Your task to perform on an android device: Clear all items from cart on newegg. Search for "macbook pro 15 inch" on newegg, select the first entry, add it to the cart, then select checkout. Image 0: 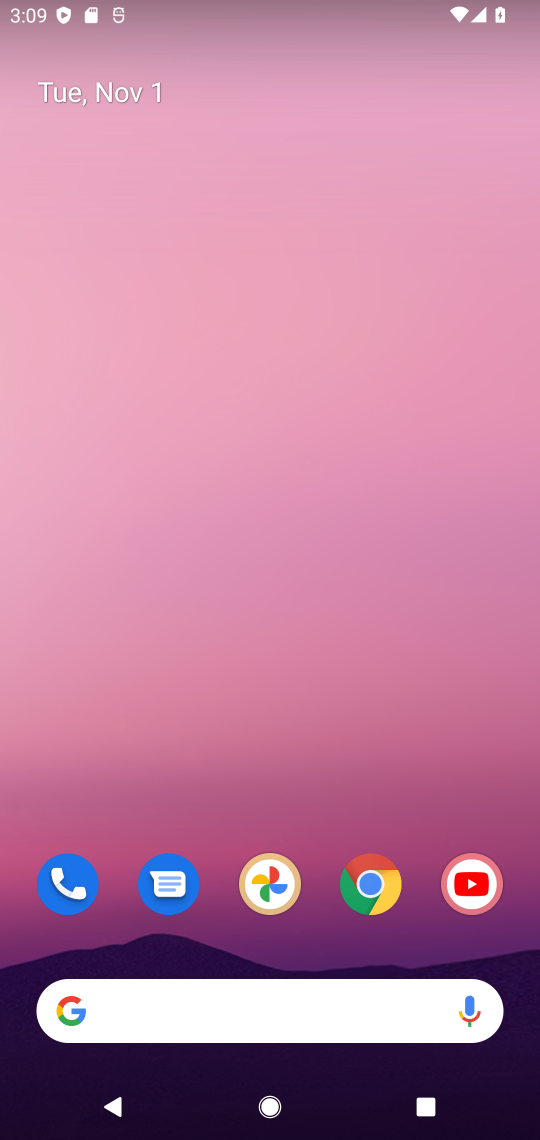
Step 0: click (352, 886)
Your task to perform on an android device: Clear all items from cart on newegg. Search for "macbook pro 15 inch" on newegg, select the first entry, add it to the cart, then select checkout. Image 1: 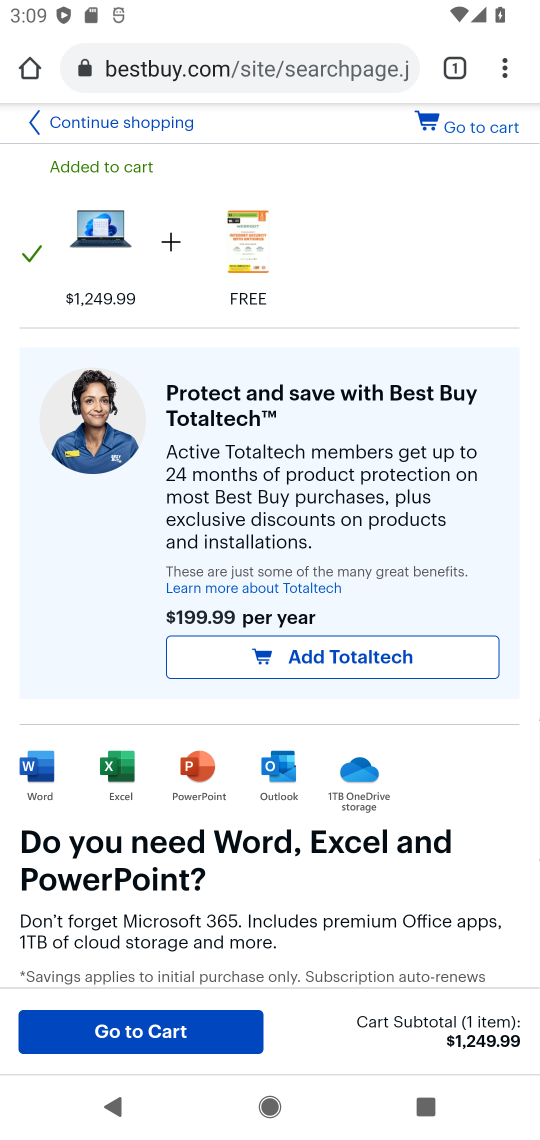
Step 1: click (329, 72)
Your task to perform on an android device: Clear all items from cart on newegg. Search for "macbook pro 15 inch" on newegg, select the first entry, add it to the cart, then select checkout. Image 2: 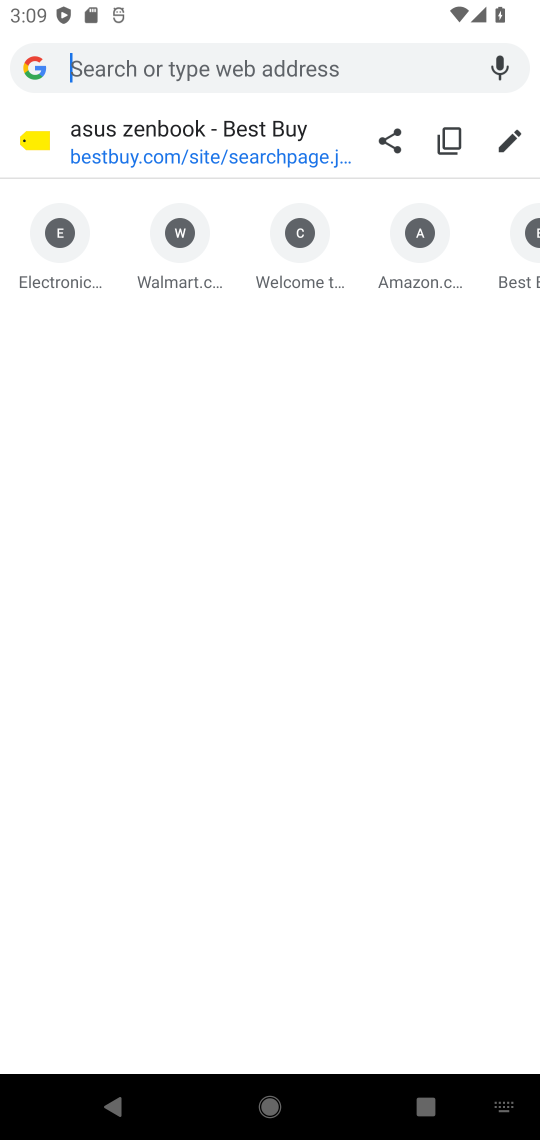
Step 2: type "newegg. "
Your task to perform on an android device: Clear all items from cart on newegg. Search for "macbook pro 15 inch" on newegg, select the first entry, add it to the cart, then select checkout. Image 3: 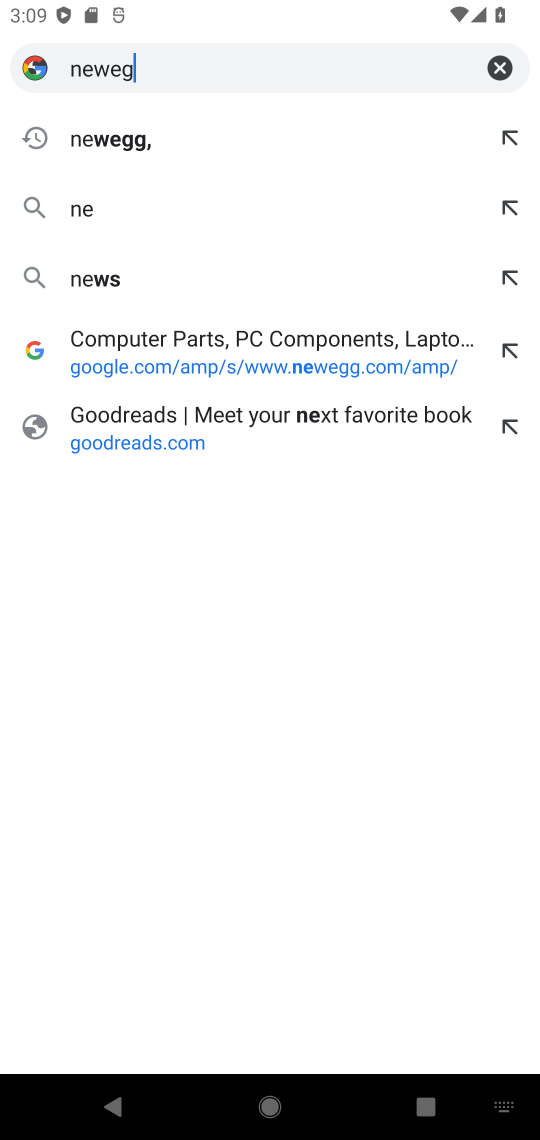
Step 3: press enter
Your task to perform on an android device: Clear all items from cart on newegg. Search for "macbook pro 15 inch" on newegg, select the first entry, add it to the cart, then select checkout. Image 4: 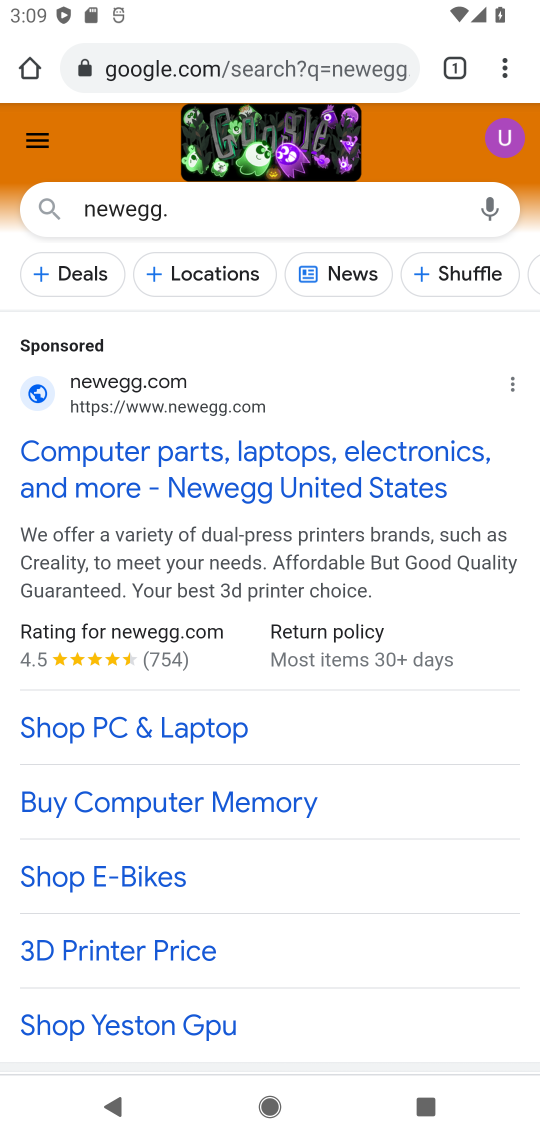
Step 4: click (137, 375)
Your task to perform on an android device: Clear all items from cart on newegg. Search for "macbook pro 15 inch" on newegg, select the first entry, add it to the cart, then select checkout. Image 5: 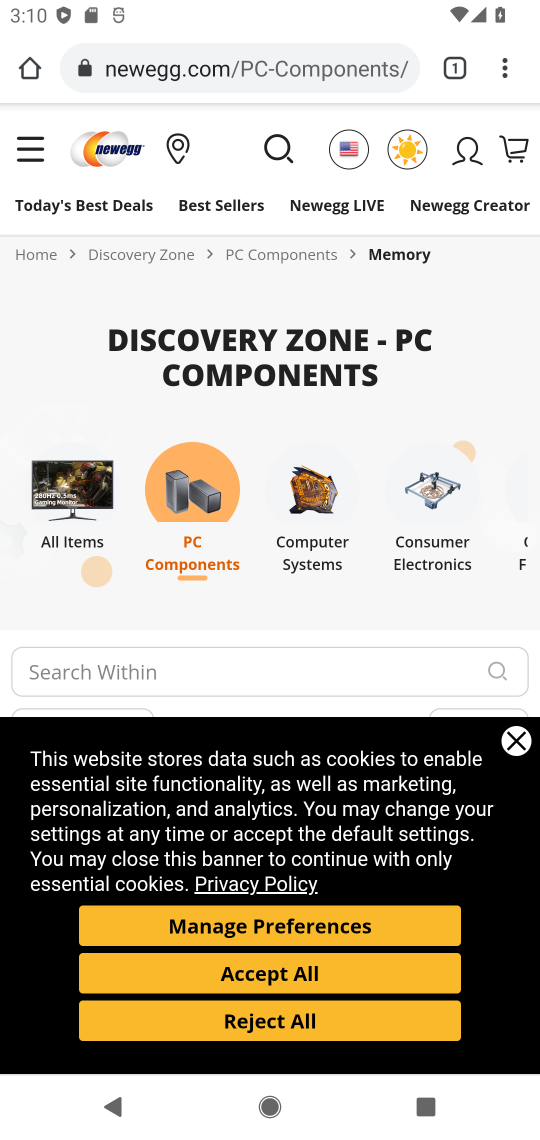
Step 5: click (276, 143)
Your task to perform on an android device: Clear all items from cart on newegg. Search for "macbook pro 15 inch" on newegg, select the first entry, add it to the cart, then select checkout. Image 6: 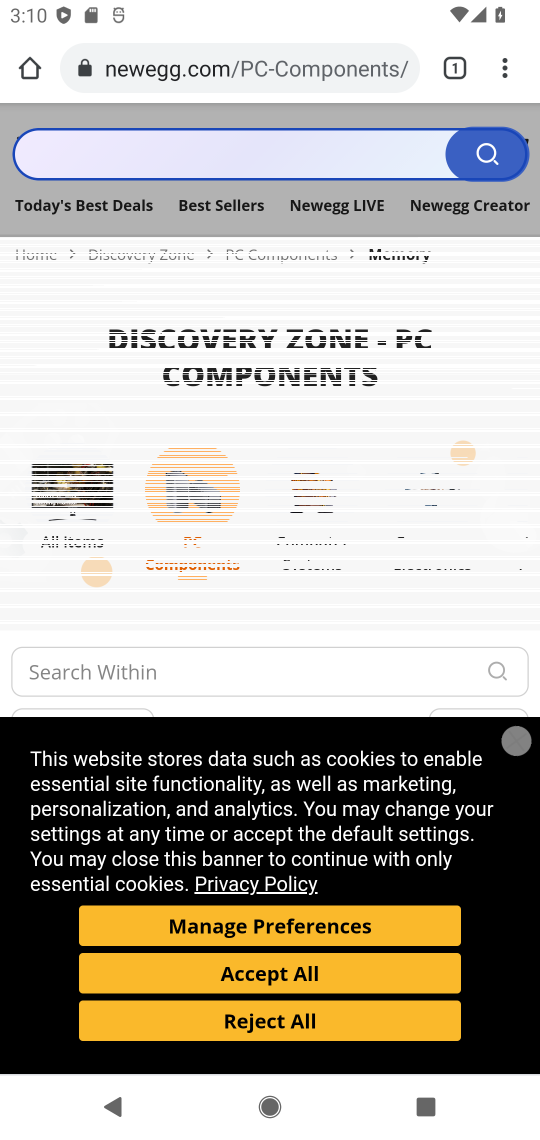
Step 6: click (502, 284)
Your task to perform on an android device: Clear all items from cart on newegg. Search for "macbook pro 15 inch" on newegg, select the first entry, add it to the cart, then select checkout. Image 7: 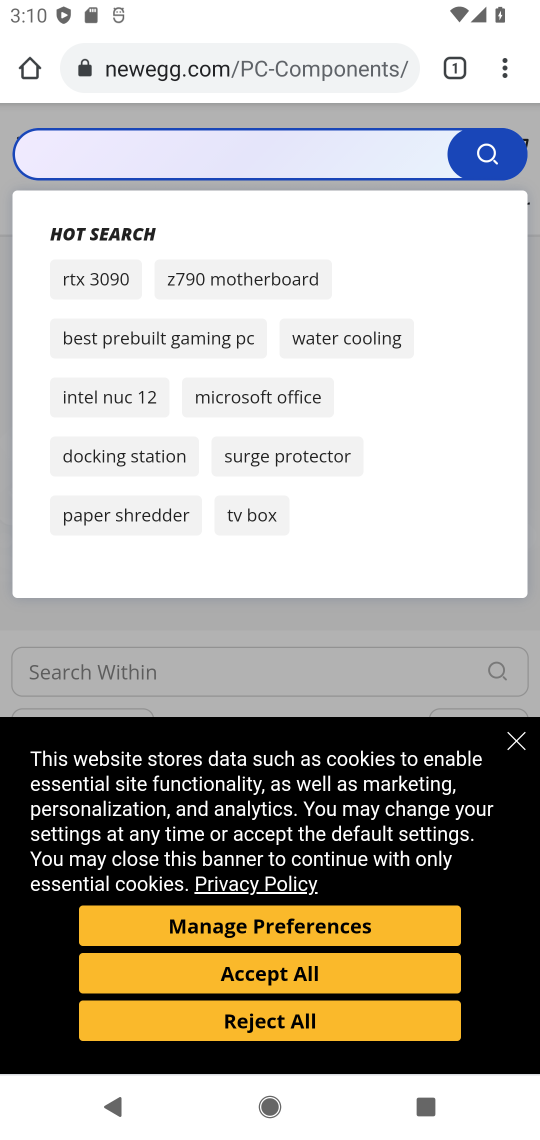
Step 7: click (394, 108)
Your task to perform on an android device: Clear all items from cart on newegg. Search for "macbook pro 15 inch" on newegg, select the first entry, add it to the cart, then select checkout. Image 8: 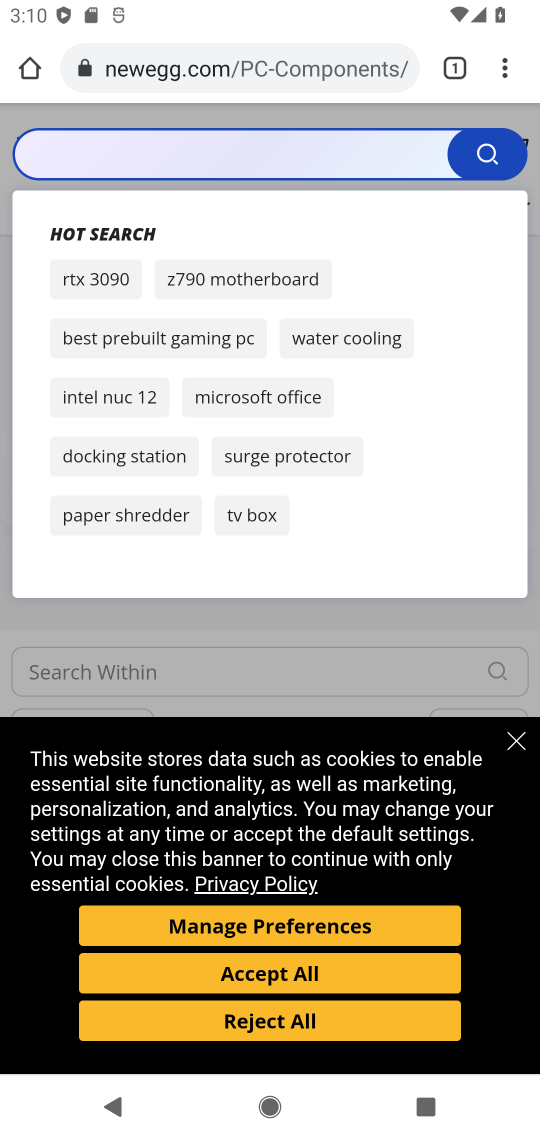
Step 8: click (297, 980)
Your task to perform on an android device: Clear all items from cart on newegg. Search for "macbook pro 15 inch" on newegg, select the first entry, add it to the cart, then select checkout. Image 9: 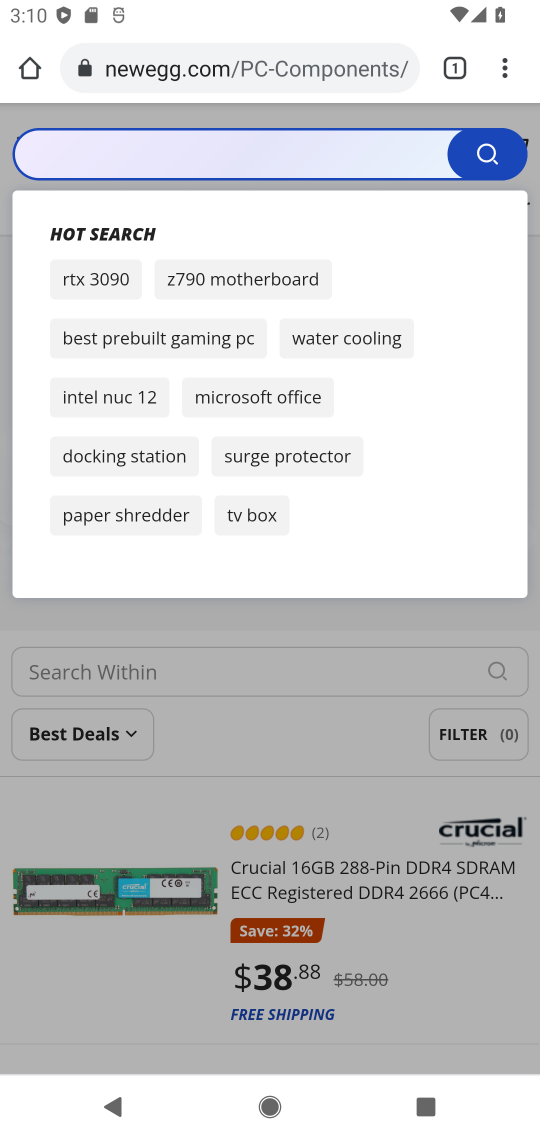
Step 9: press back button
Your task to perform on an android device: Clear all items from cart on newegg. Search for "macbook pro 15 inch" on newegg, select the first entry, add it to the cart, then select checkout. Image 10: 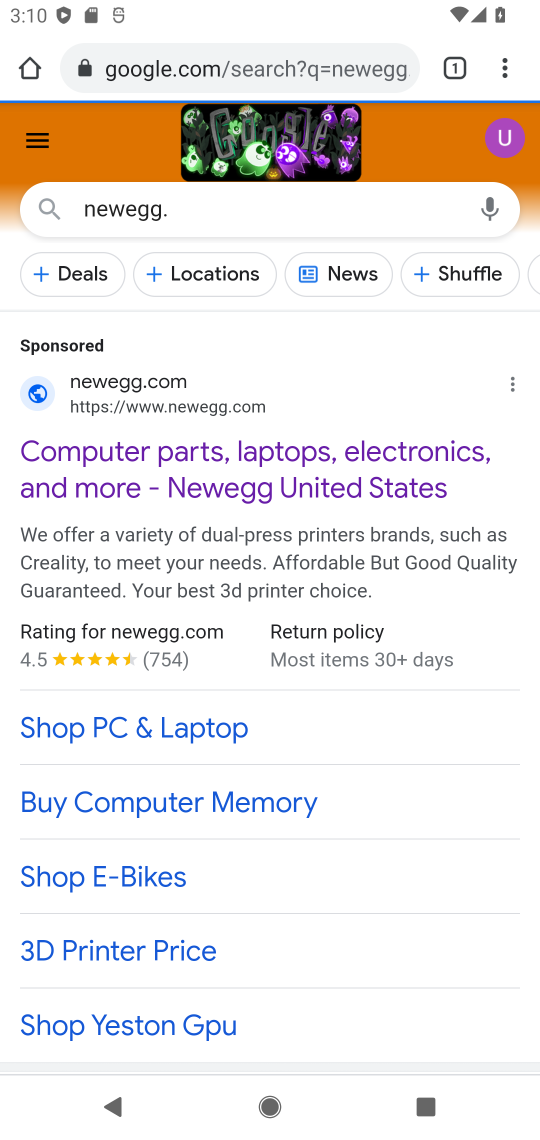
Step 10: drag from (140, 742) to (169, 454)
Your task to perform on an android device: Clear all items from cart on newegg. Search for "macbook pro 15 inch" on newegg, select the first entry, add it to the cart, then select checkout. Image 11: 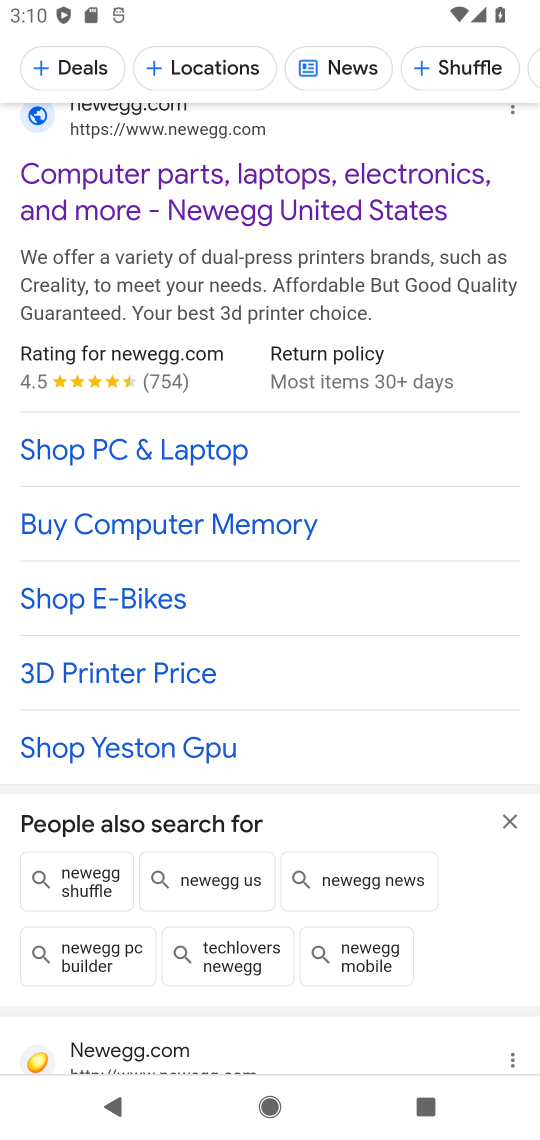
Step 11: drag from (173, 830) to (225, 433)
Your task to perform on an android device: Clear all items from cart on newegg. Search for "macbook pro 15 inch" on newegg, select the first entry, add it to the cart, then select checkout. Image 12: 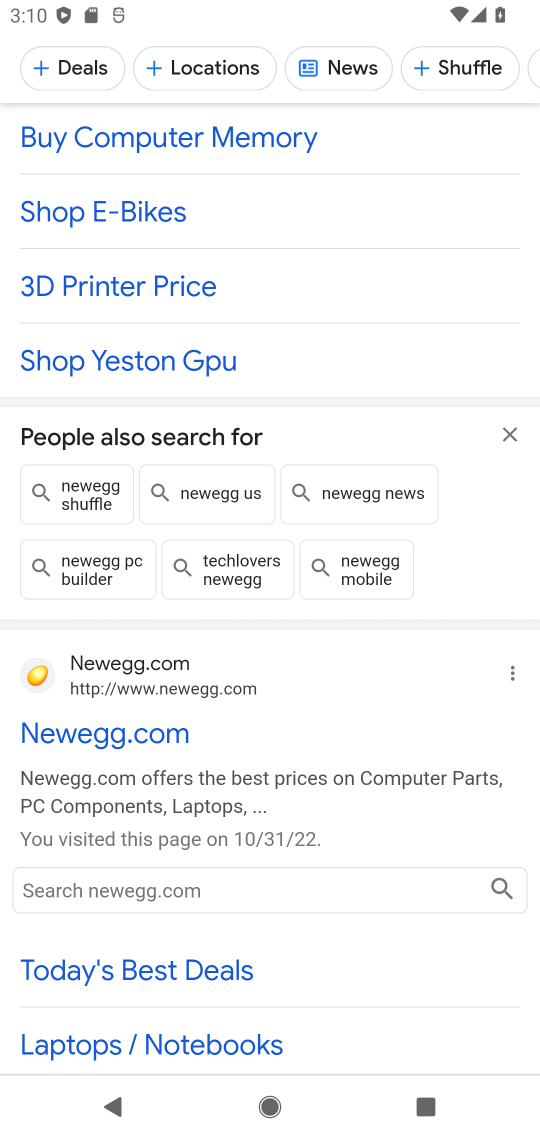
Step 12: click (162, 660)
Your task to perform on an android device: Clear all items from cart on newegg. Search for "macbook pro 15 inch" on newegg, select the first entry, add it to the cart, then select checkout. Image 13: 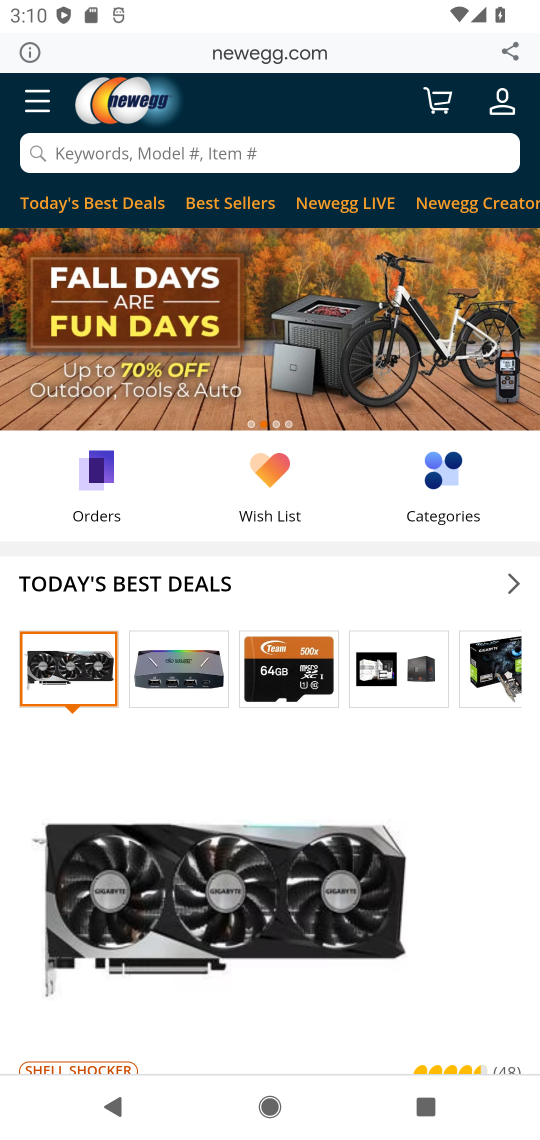
Step 13: click (439, 104)
Your task to perform on an android device: Clear all items from cart on newegg. Search for "macbook pro 15 inch" on newegg, select the first entry, add it to the cart, then select checkout. Image 14: 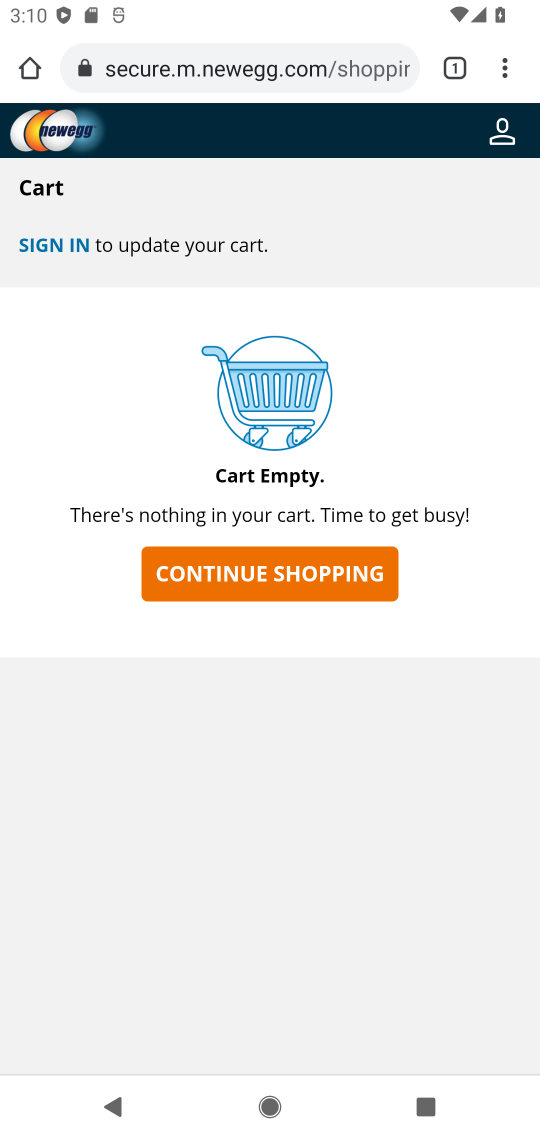
Step 14: press back button
Your task to perform on an android device: Clear all items from cart on newegg. Search for "macbook pro 15 inch" on newegg, select the first entry, add it to the cart, then select checkout. Image 15: 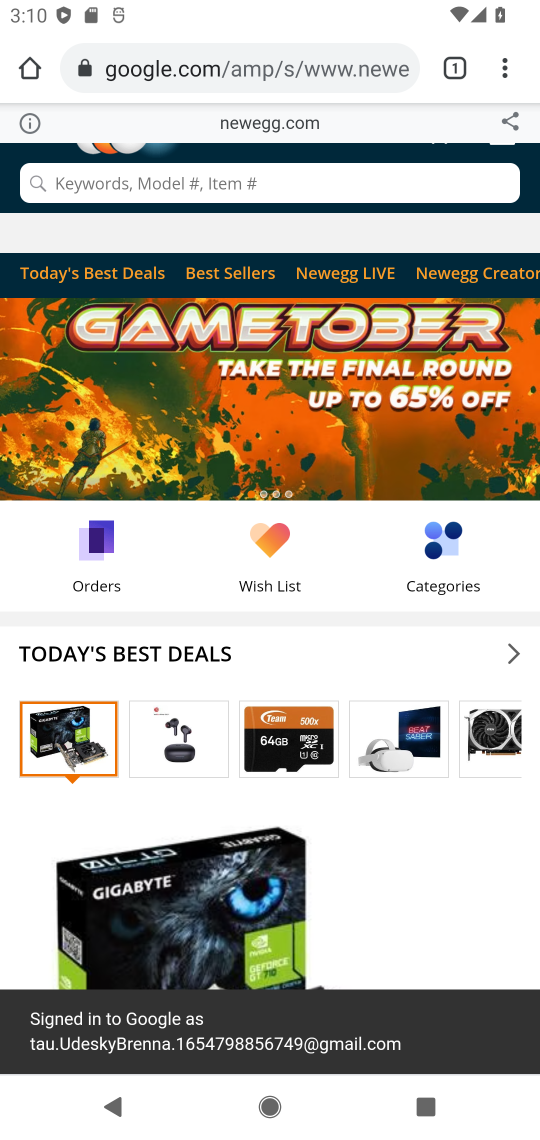
Step 15: click (326, 189)
Your task to perform on an android device: Clear all items from cart on newegg. Search for "macbook pro 15 inch" on newegg, select the first entry, add it to the cart, then select checkout. Image 16: 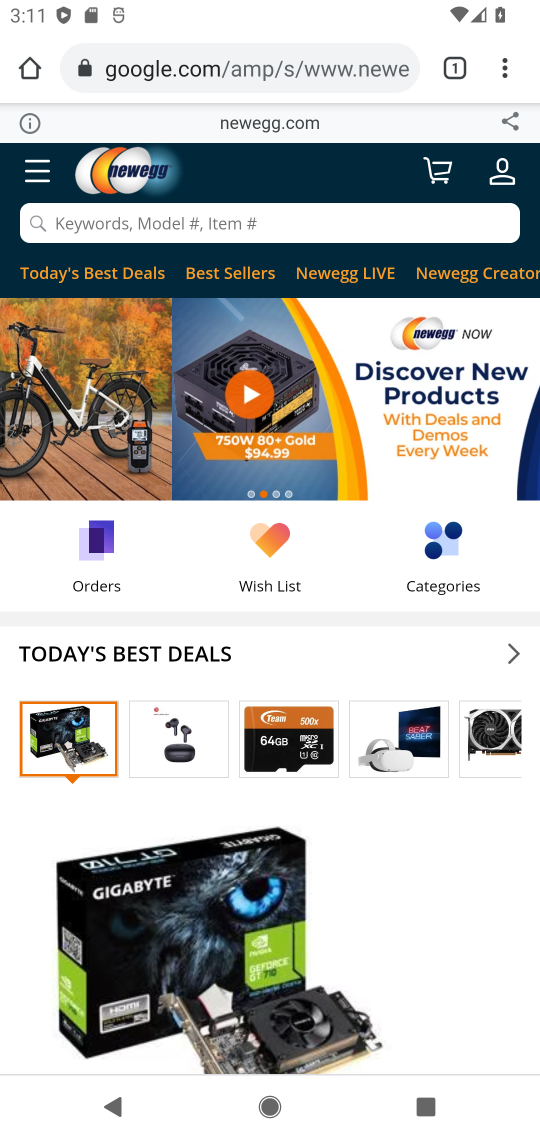
Step 16: click (248, 223)
Your task to perform on an android device: Clear all items from cart on newegg. Search for "macbook pro 15 inch" on newegg, select the first entry, add it to the cart, then select checkout. Image 17: 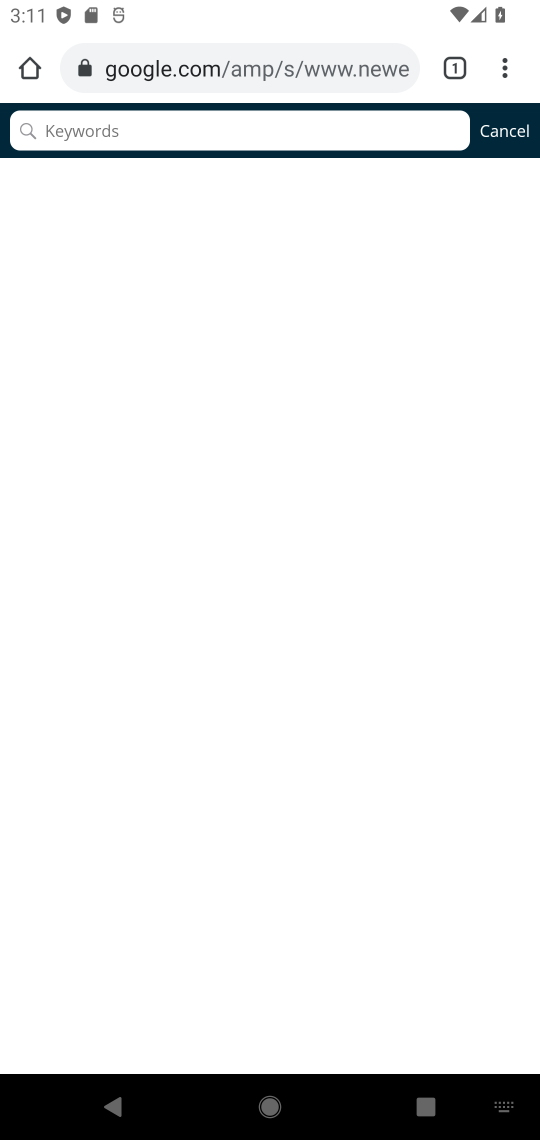
Step 17: type "macbook pro 15 inch"
Your task to perform on an android device: Clear all items from cart on newegg. Search for "macbook pro 15 inch" on newegg, select the first entry, add it to the cart, then select checkout. Image 18: 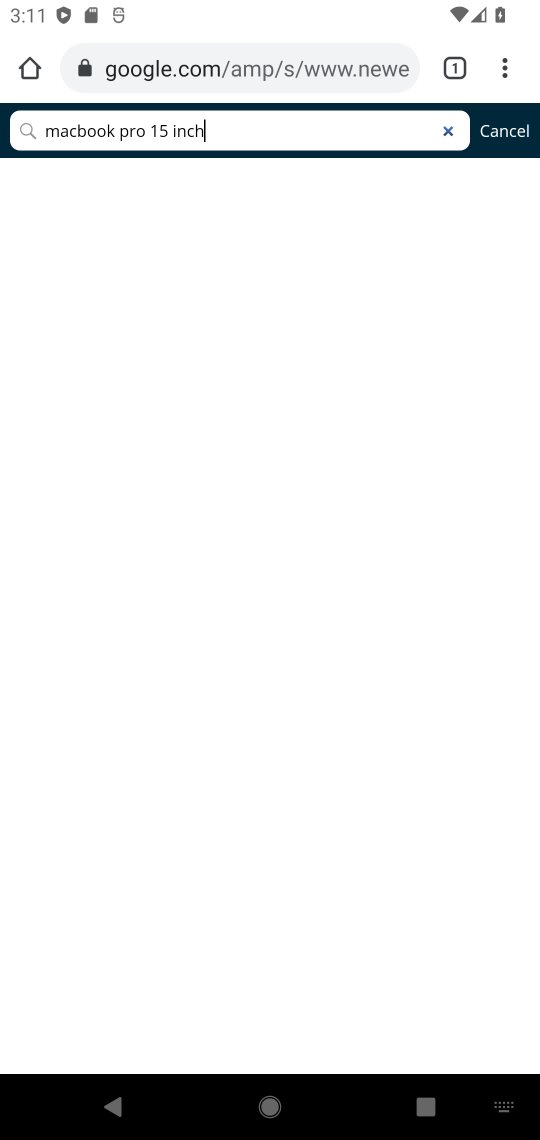
Step 18: click (387, 122)
Your task to perform on an android device: Clear all items from cart on newegg. Search for "macbook pro 15 inch" on newegg, select the first entry, add it to the cart, then select checkout. Image 19: 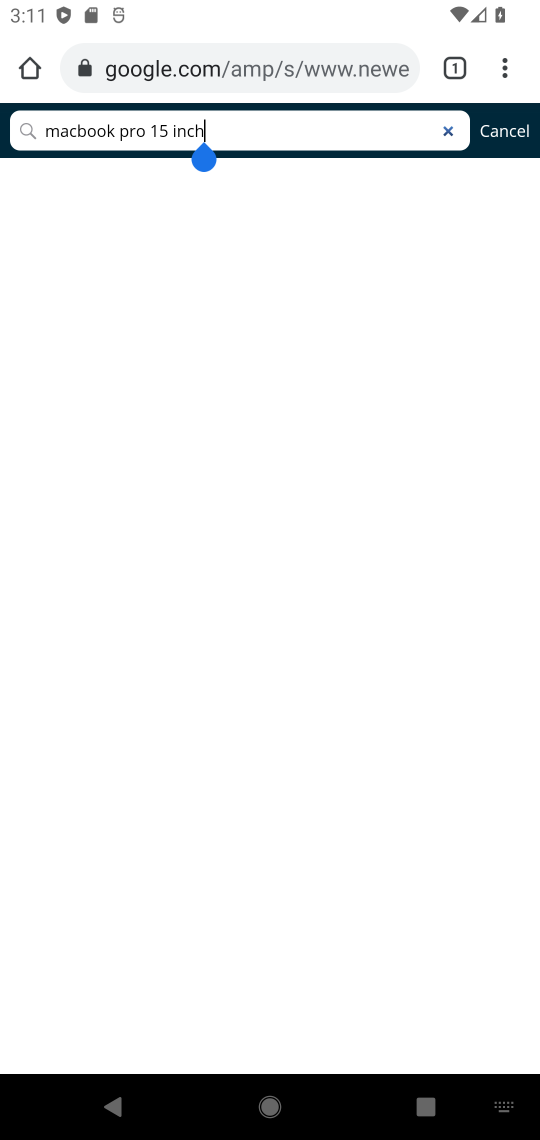
Step 19: click (312, 124)
Your task to perform on an android device: Clear all items from cart on newegg. Search for "macbook pro 15 inch" on newegg, select the first entry, add it to the cart, then select checkout. Image 20: 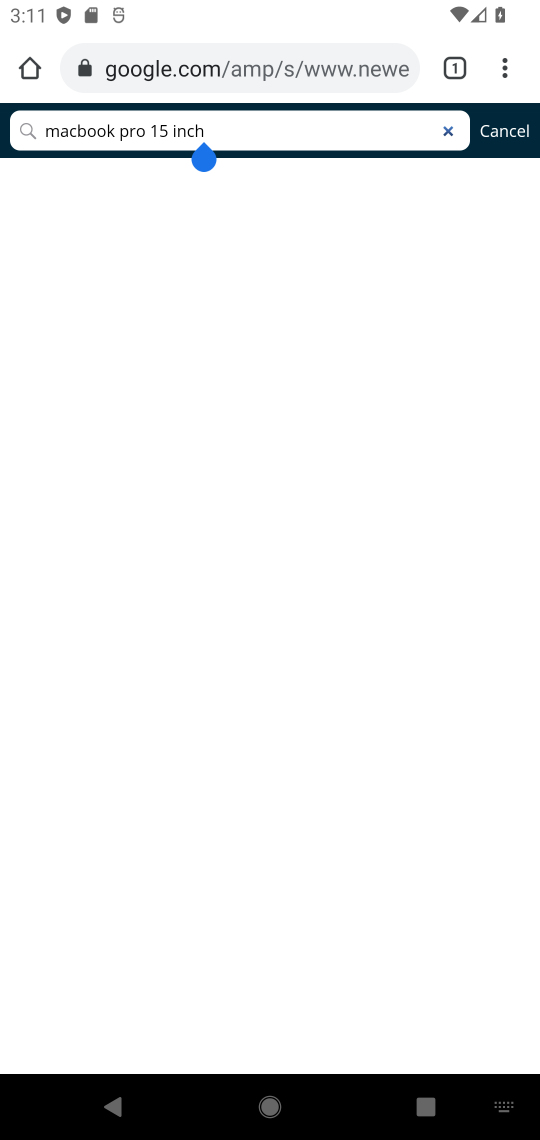
Step 20: click (334, 122)
Your task to perform on an android device: Clear all items from cart on newegg. Search for "macbook pro 15 inch" on newegg, select the first entry, add it to the cart, then select checkout. Image 21: 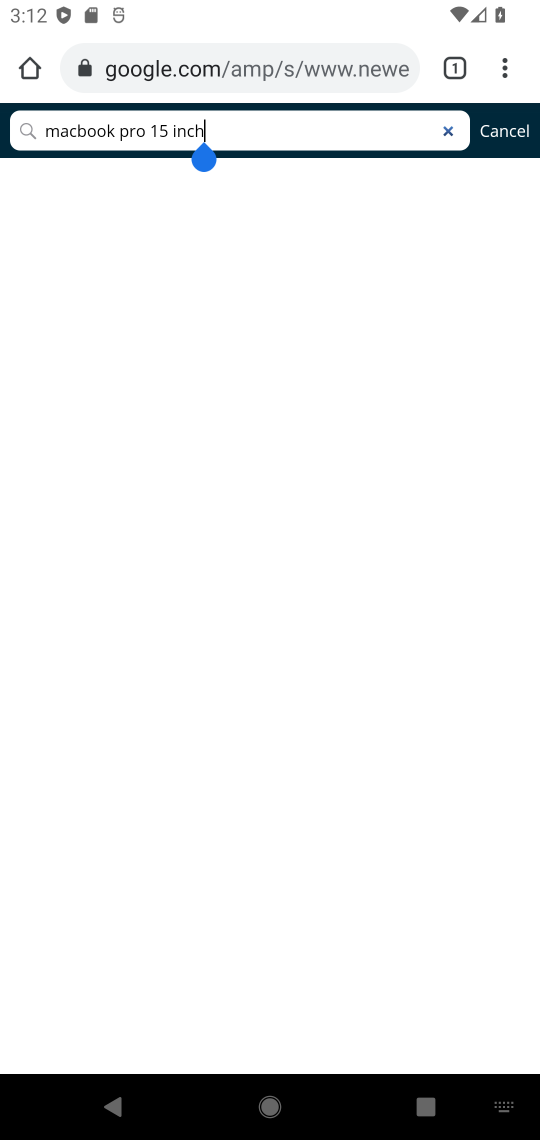
Step 21: click (448, 121)
Your task to perform on an android device: Clear all items from cart on newegg. Search for "macbook pro 15 inch" on newegg, select the first entry, add it to the cart, then select checkout. Image 22: 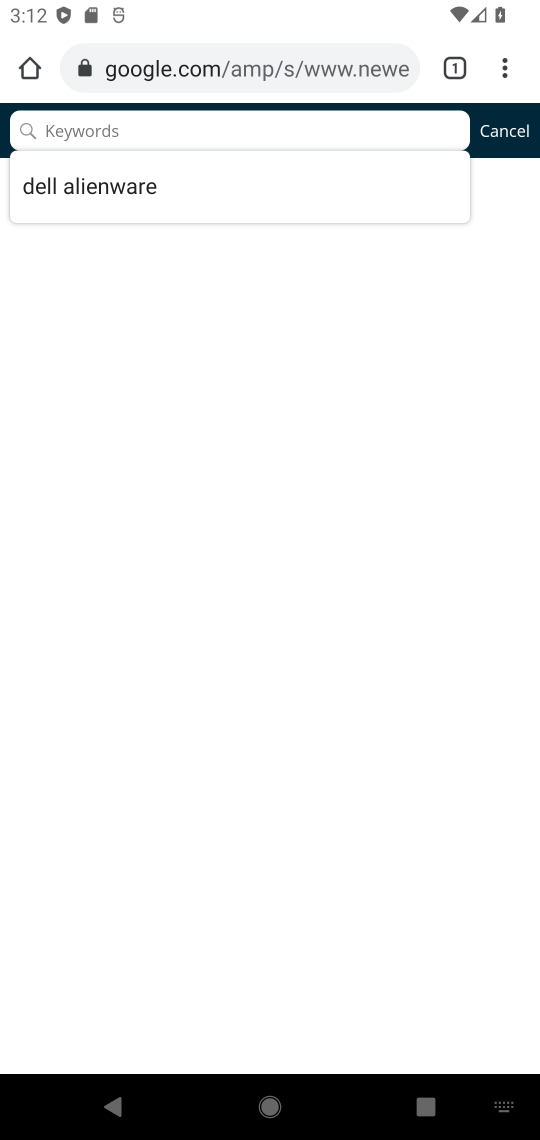
Step 22: click (502, 137)
Your task to perform on an android device: Clear all items from cart on newegg. Search for "macbook pro 15 inch" on newegg, select the first entry, add it to the cart, then select checkout. Image 23: 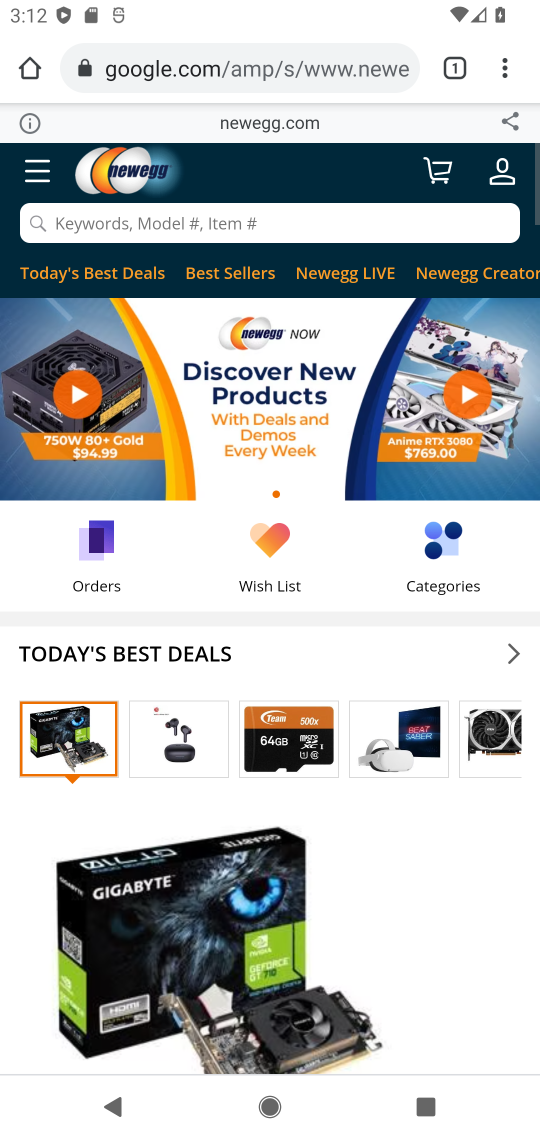
Step 23: click (472, 214)
Your task to perform on an android device: Clear all items from cart on newegg. Search for "macbook pro 15 inch" on newegg, select the first entry, add it to the cart, then select checkout. Image 24: 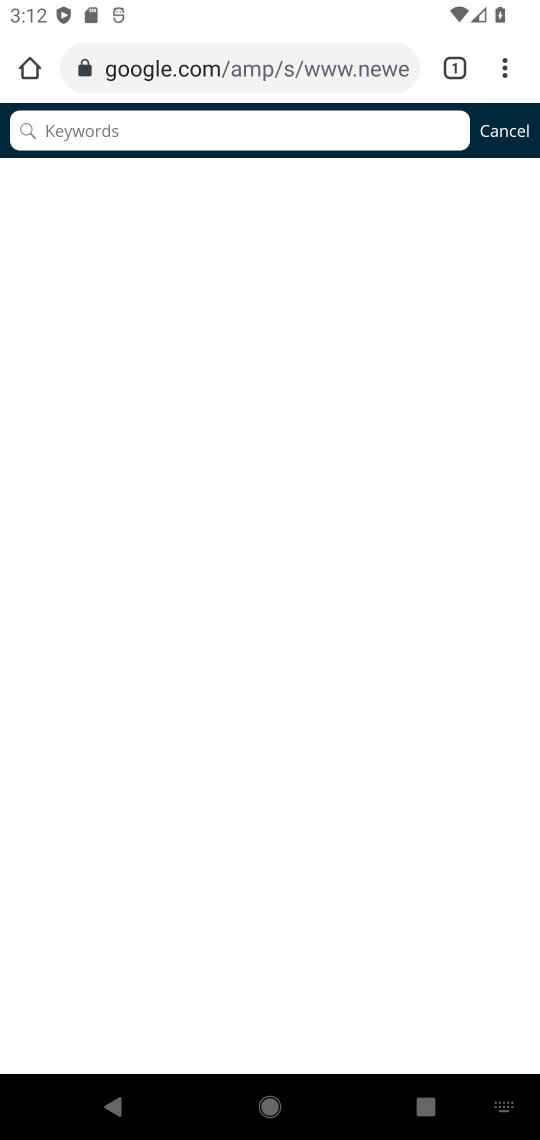
Step 24: type "macbook pro 15 inch"
Your task to perform on an android device: Clear all items from cart on newegg. Search for "macbook pro 15 inch" on newegg, select the first entry, add it to the cart, then select checkout. Image 25: 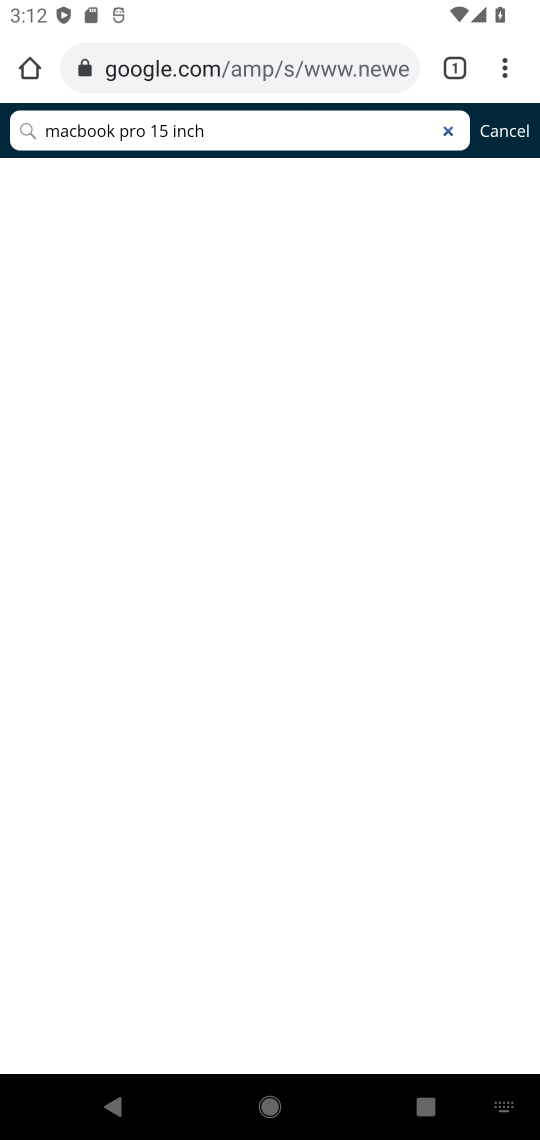
Step 25: click (375, 139)
Your task to perform on an android device: Clear all items from cart on newegg. Search for "macbook pro 15 inch" on newegg, select the first entry, add it to the cart, then select checkout. Image 26: 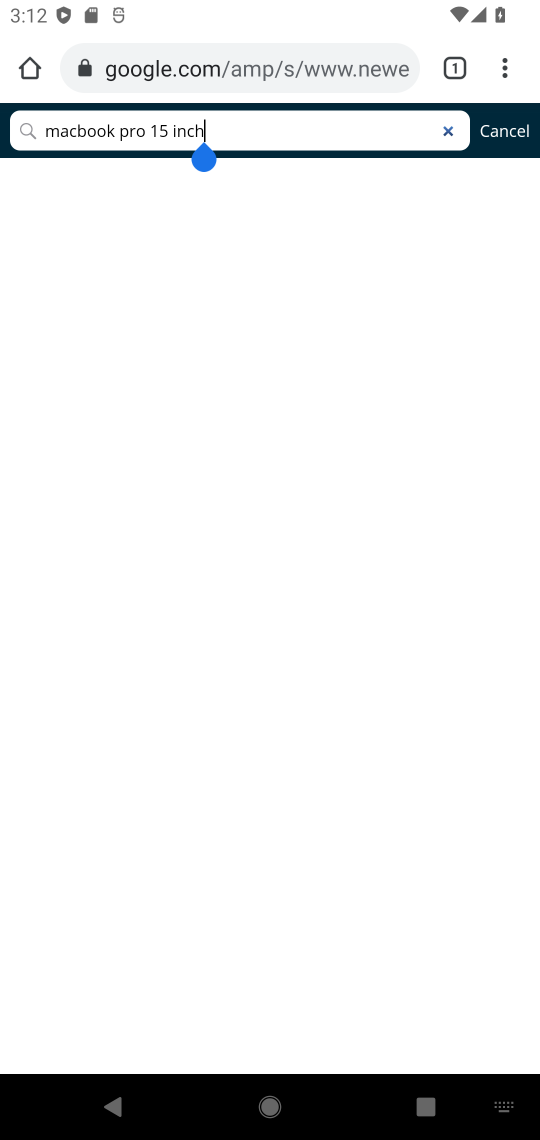
Step 26: click (499, 126)
Your task to perform on an android device: Clear all items from cart on newegg. Search for "macbook pro 15 inch" on newegg, select the first entry, add it to the cart, then select checkout. Image 27: 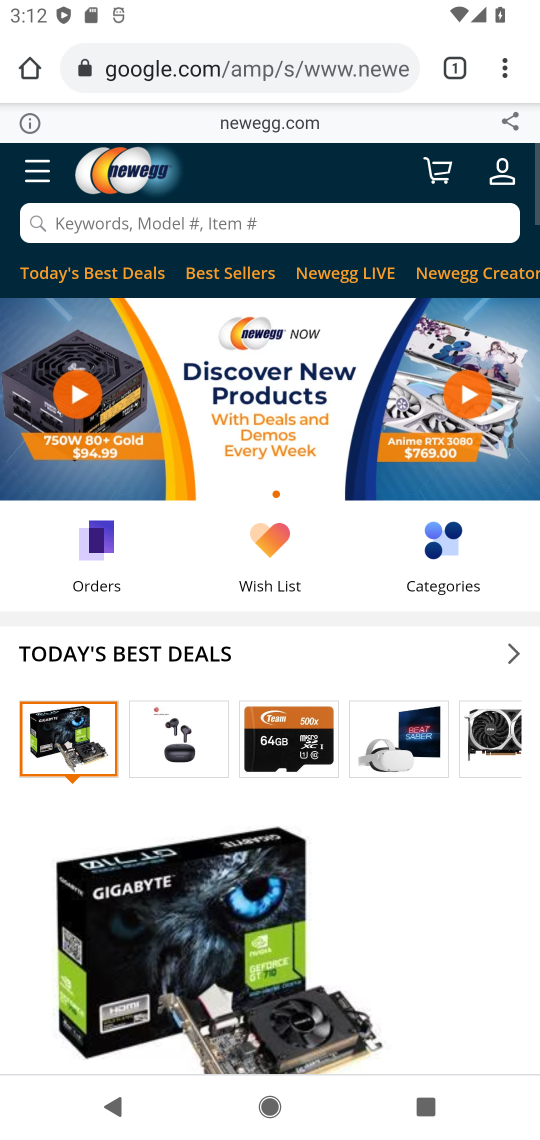
Step 27: click (412, 212)
Your task to perform on an android device: Clear all items from cart on newegg. Search for "macbook pro 15 inch" on newegg, select the first entry, add it to the cart, then select checkout. Image 28: 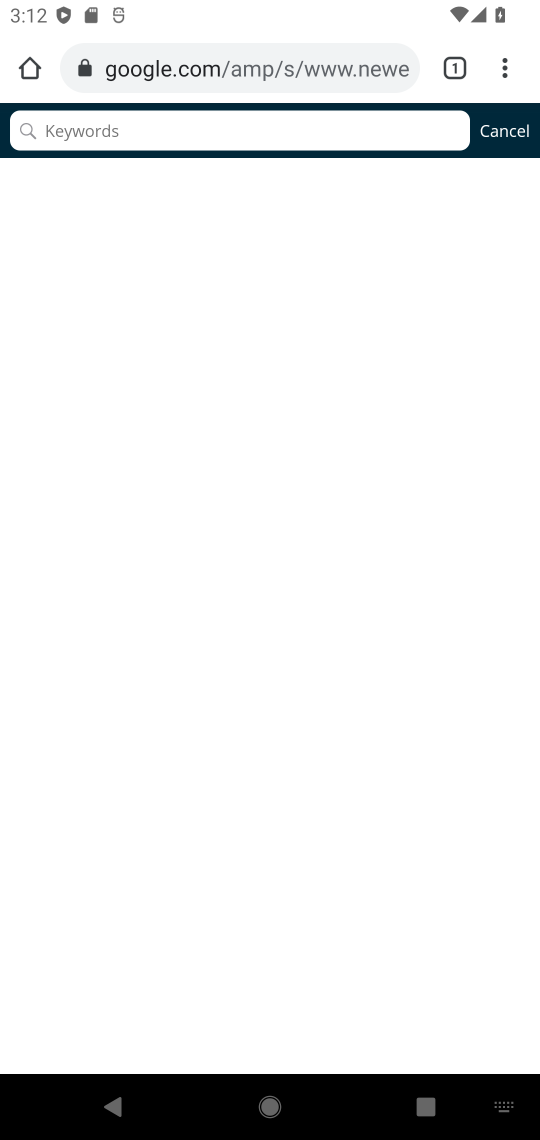
Step 28: type "macbook pro 15 inch"
Your task to perform on an android device: Clear all items from cart on newegg. Search for "macbook pro 15 inch" on newegg, select the first entry, add it to the cart, then select checkout. Image 29: 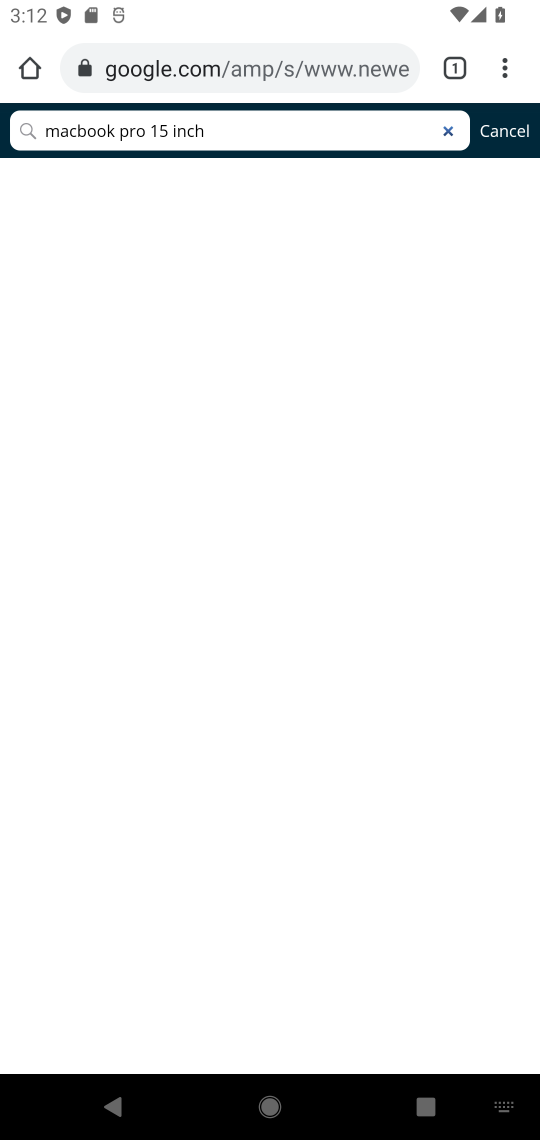
Step 29: task complete